Your task to perform on an android device: Open Youtube and go to the subscriptions tab Image 0: 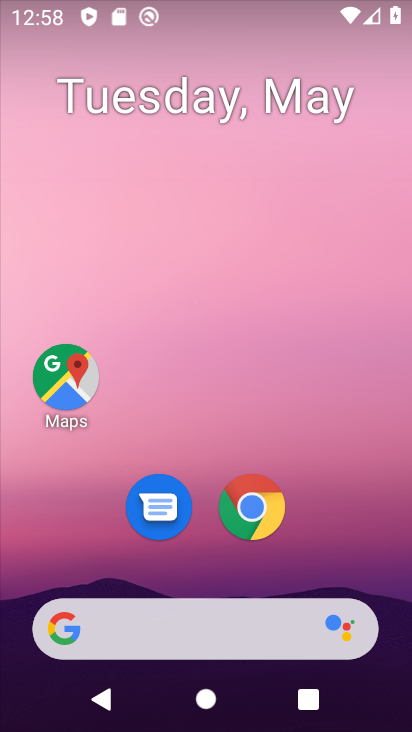
Step 0: drag from (385, 588) to (334, 190)
Your task to perform on an android device: Open Youtube and go to the subscriptions tab Image 1: 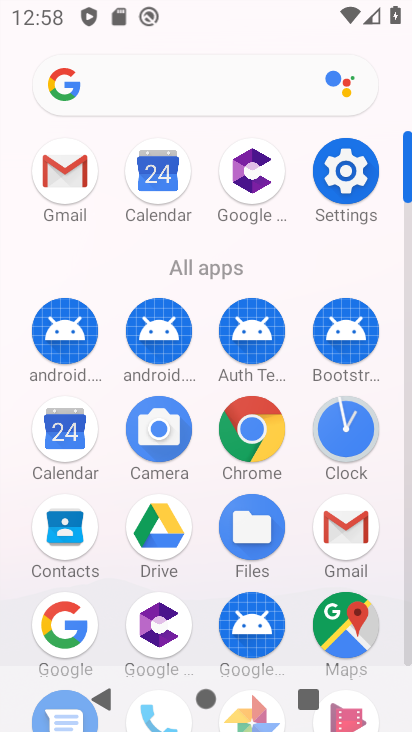
Step 1: click (410, 652)
Your task to perform on an android device: Open Youtube and go to the subscriptions tab Image 2: 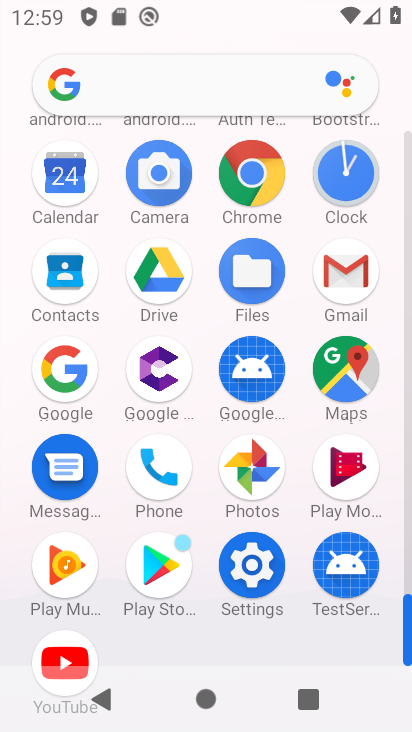
Step 2: click (71, 656)
Your task to perform on an android device: Open Youtube and go to the subscriptions tab Image 3: 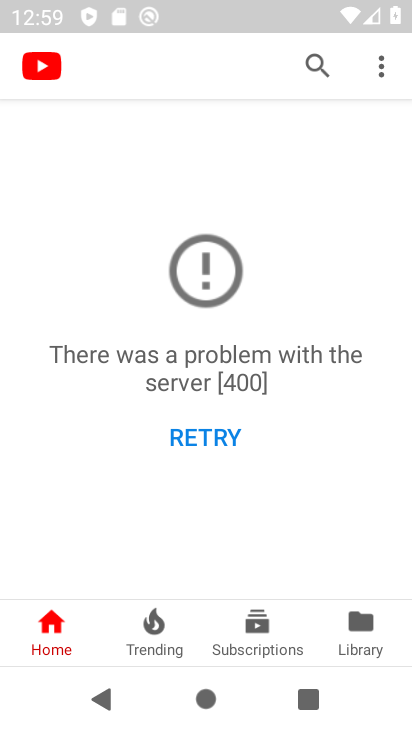
Step 3: click (271, 644)
Your task to perform on an android device: Open Youtube and go to the subscriptions tab Image 4: 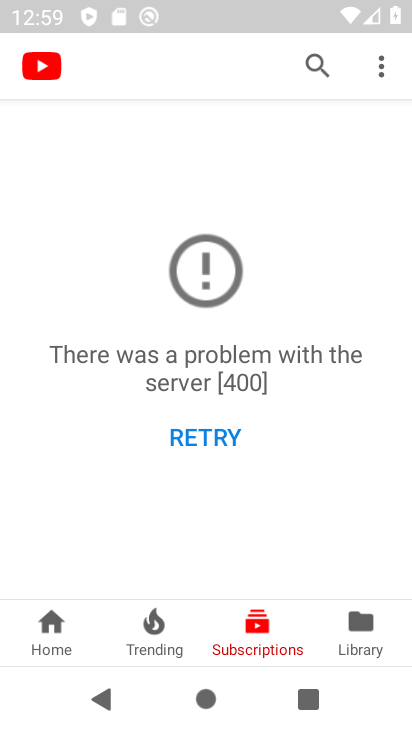
Step 4: task complete